Your task to perform on an android device: When is my next meeting? Image 0: 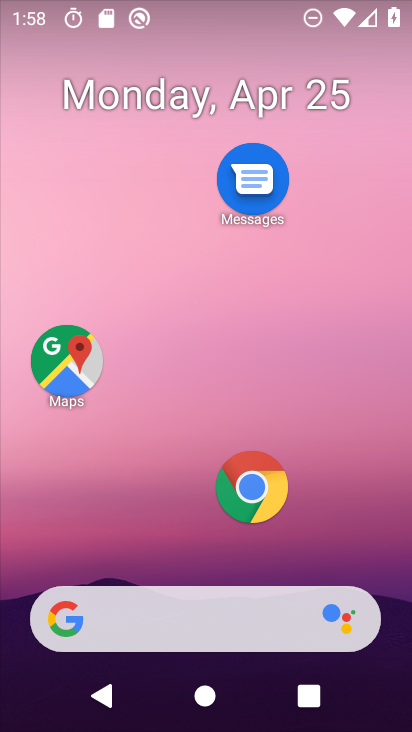
Step 0: drag from (299, 545) to (292, 1)
Your task to perform on an android device: When is my next meeting? Image 1: 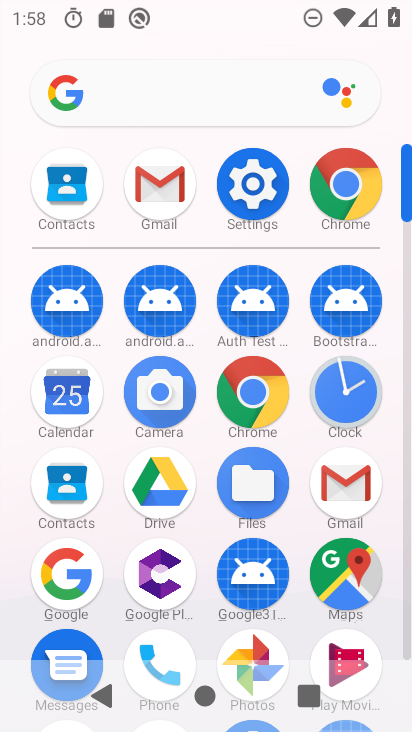
Step 1: click (255, 412)
Your task to perform on an android device: When is my next meeting? Image 2: 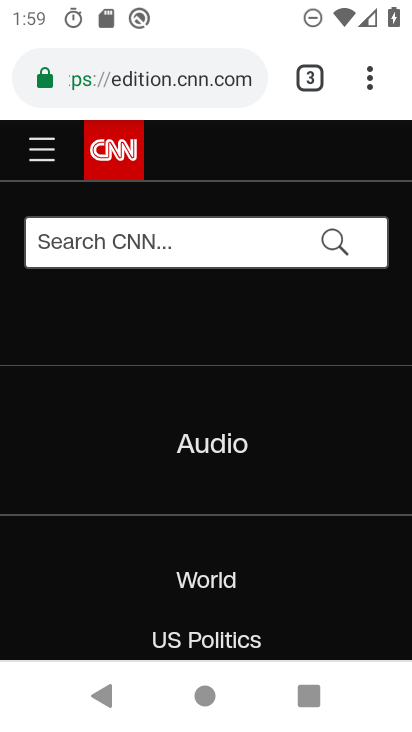
Step 2: press home button
Your task to perform on an android device: When is my next meeting? Image 3: 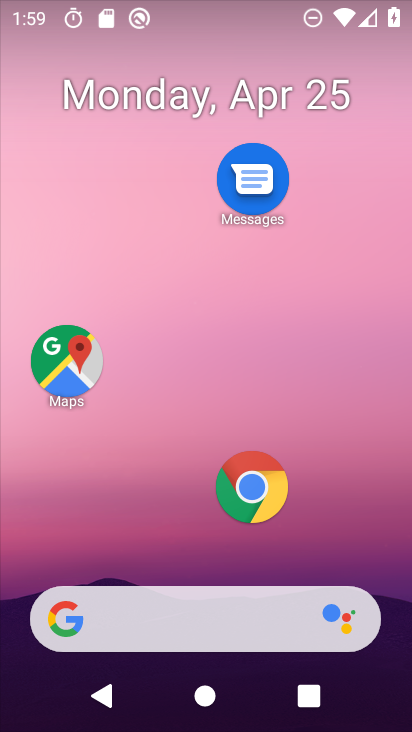
Step 3: drag from (148, 659) to (163, 4)
Your task to perform on an android device: When is my next meeting? Image 4: 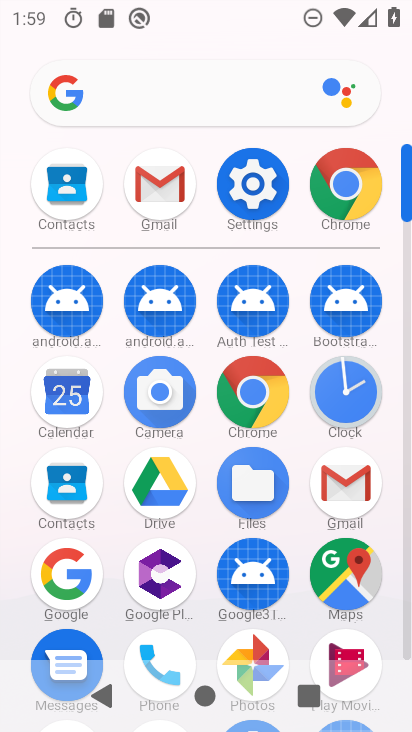
Step 4: click (75, 395)
Your task to perform on an android device: When is my next meeting? Image 5: 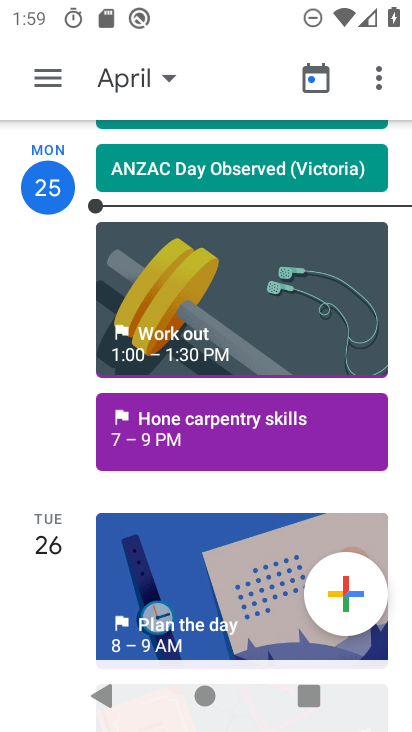
Step 5: click (169, 73)
Your task to perform on an android device: When is my next meeting? Image 6: 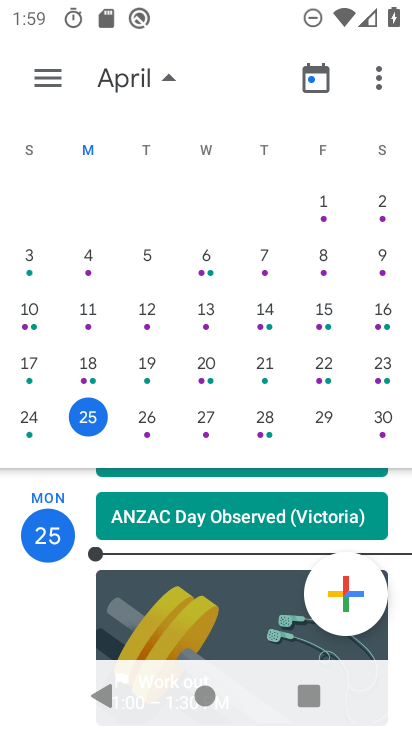
Step 6: click (197, 413)
Your task to perform on an android device: When is my next meeting? Image 7: 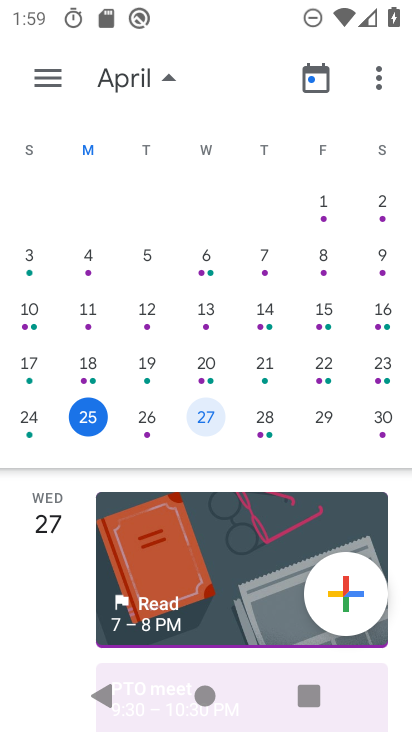
Step 7: click (201, 413)
Your task to perform on an android device: When is my next meeting? Image 8: 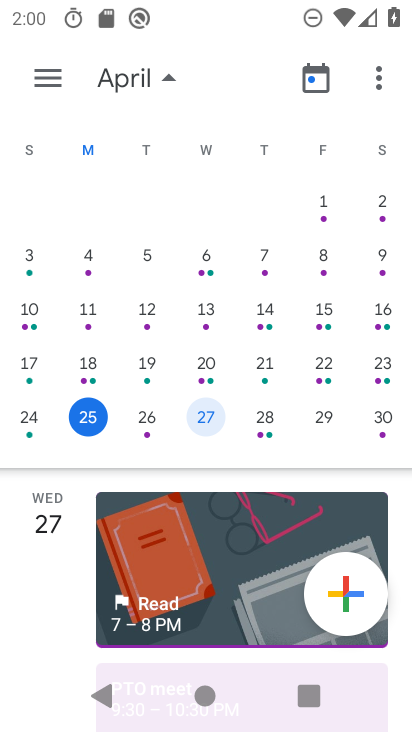
Step 8: task complete